Your task to perform on an android device: add a label to a message in the gmail app Image 0: 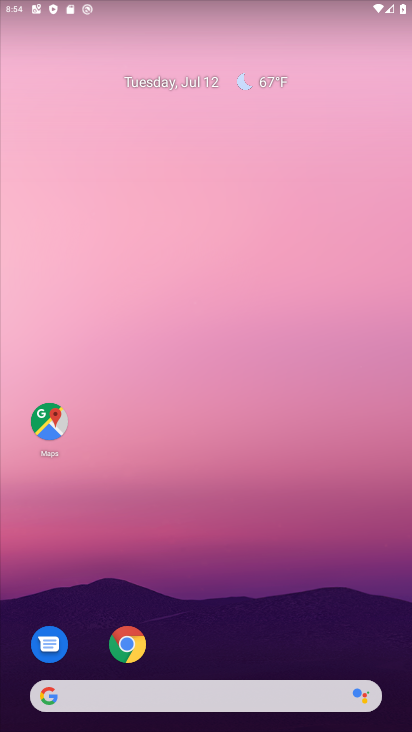
Step 0: drag from (183, 568) to (320, 51)
Your task to perform on an android device: add a label to a message in the gmail app Image 1: 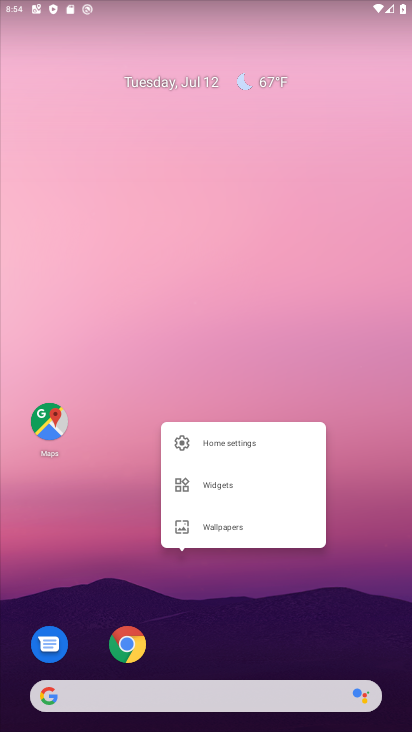
Step 1: click (207, 645)
Your task to perform on an android device: add a label to a message in the gmail app Image 2: 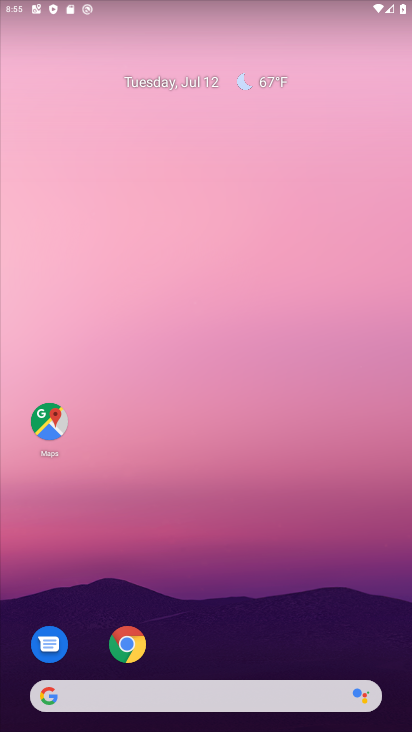
Step 2: drag from (195, 661) to (296, 127)
Your task to perform on an android device: add a label to a message in the gmail app Image 3: 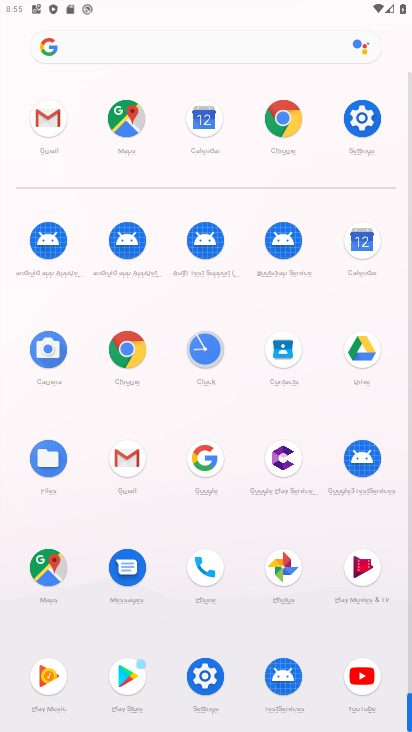
Step 3: click (126, 464)
Your task to perform on an android device: add a label to a message in the gmail app Image 4: 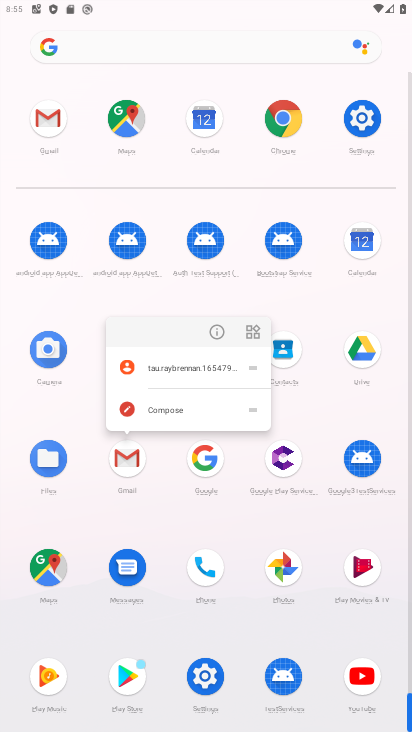
Step 4: click (208, 334)
Your task to perform on an android device: add a label to a message in the gmail app Image 5: 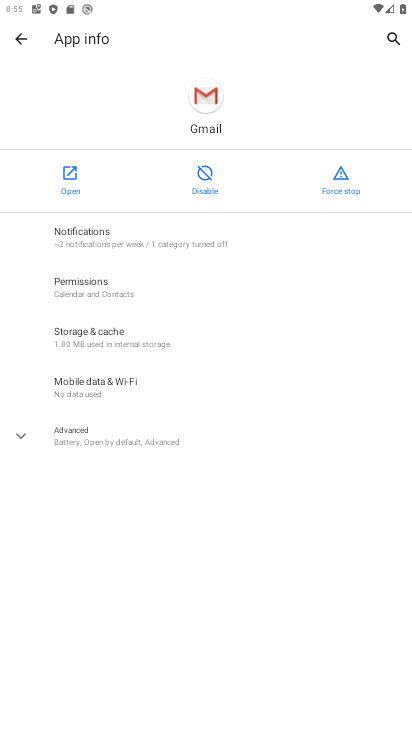
Step 5: click (80, 161)
Your task to perform on an android device: add a label to a message in the gmail app Image 6: 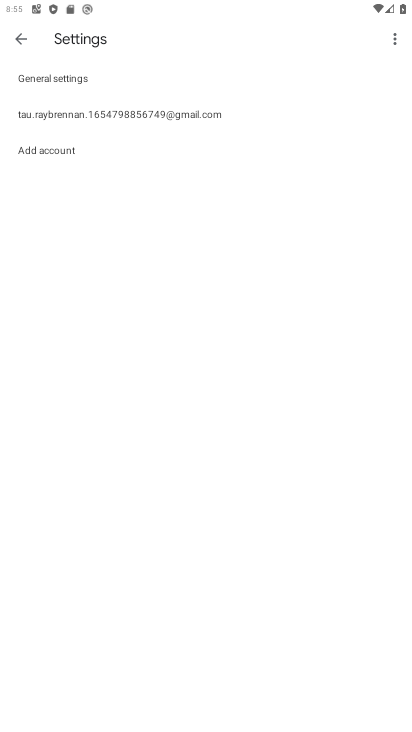
Step 6: click (18, 28)
Your task to perform on an android device: add a label to a message in the gmail app Image 7: 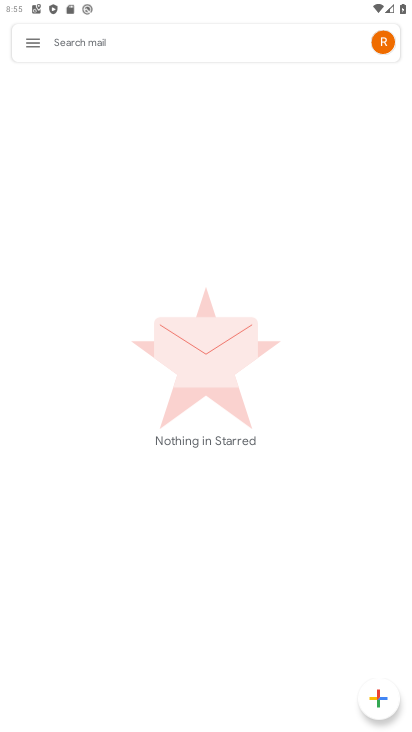
Step 7: task complete